Your task to perform on an android device: open chrome and create a bookmark for the current page Image 0: 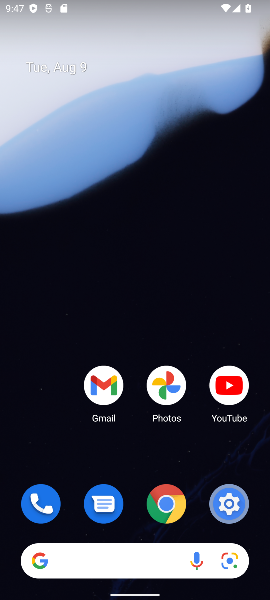
Step 0: click (167, 505)
Your task to perform on an android device: open chrome and create a bookmark for the current page Image 1: 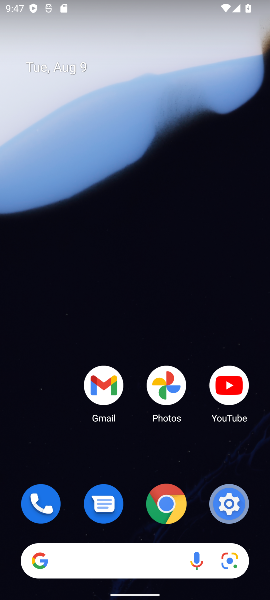
Step 1: click (167, 505)
Your task to perform on an android device: open chrome and create a bookmark for the current page Image 2: 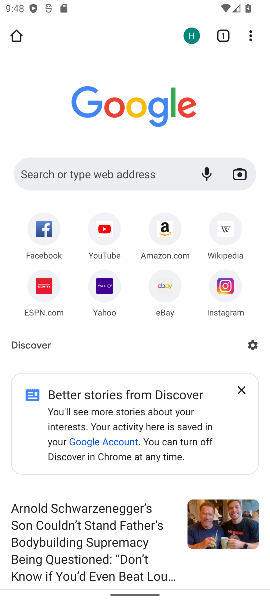
Step 2: click (247, 30)
Your task to perform on an android device: open chrome and create a bookmark for the current page Image 3: 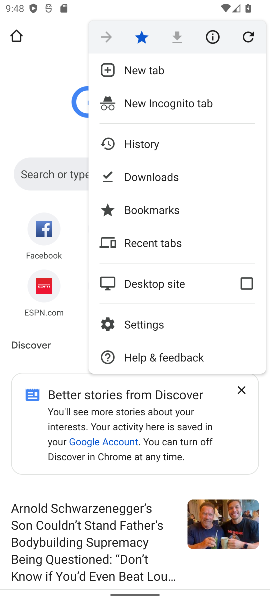
Step 3: click (159, 206)
Your task to perform on an android device: open chrome and create a bookmark for the current page Image 4: 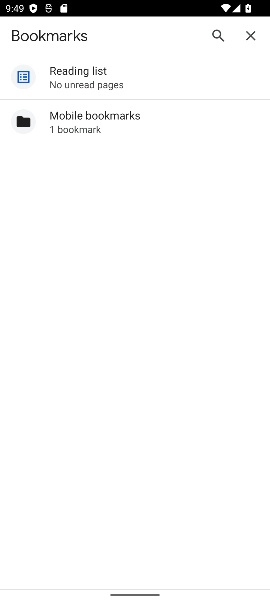
Step 4: click (248, 36)
Your task to perform on an android device: open chrome and create a bookmark for the current page Image 5: 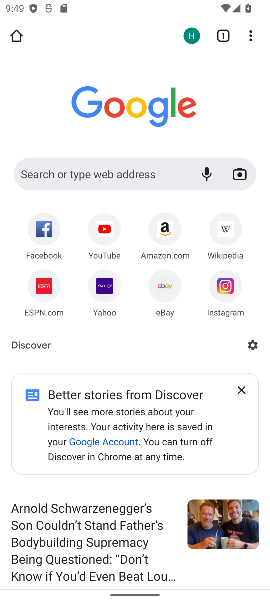
Step 5: click (248, 32)
Your task to perform on an android device: open chrome and create a bookmark for the current page Image 6: 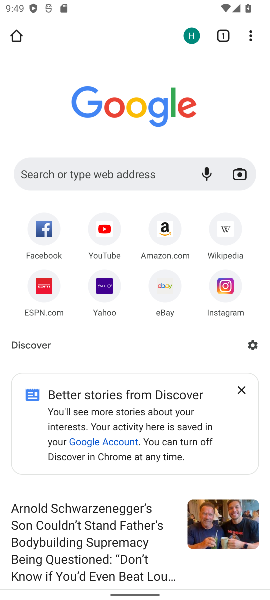
Step 6: click (248, 32)
Your task to perform on an android device: open chrome and create a bookmark for the current page Image 7: 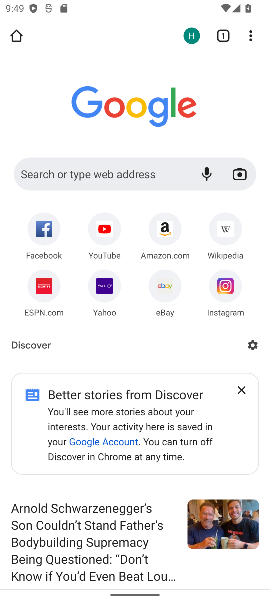
Step 7: click (248, 32)
Your task to perform on an android device: open chrome and create a bookmark for the current page Image 8: 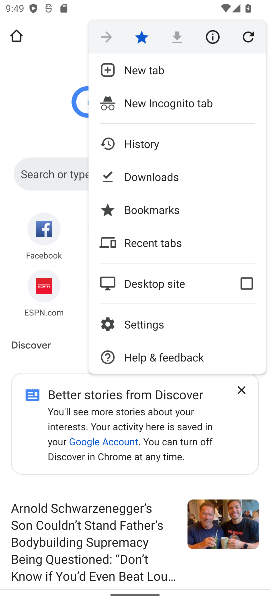
Step 8: click (41, 88)
Your task to perform on an android device: open chrome and create a bookmark for the current page Image 9: 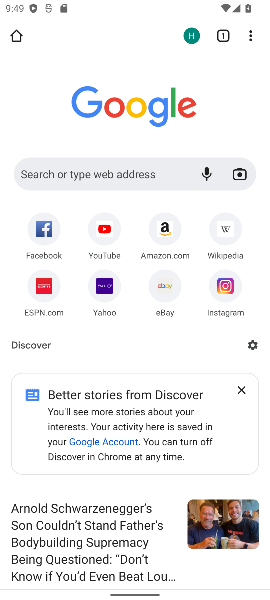
Step 9: task complete